Your task to perform on an android device: Go to Maps Image 0: 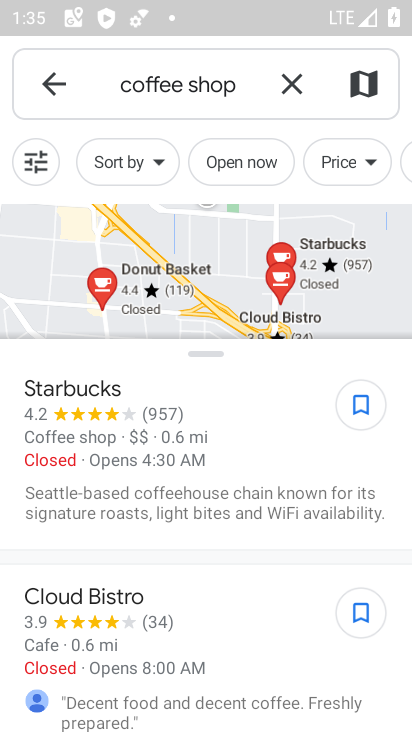
Step 0: press home button
Your task to perform on an android device: Go to Maps Image 1: 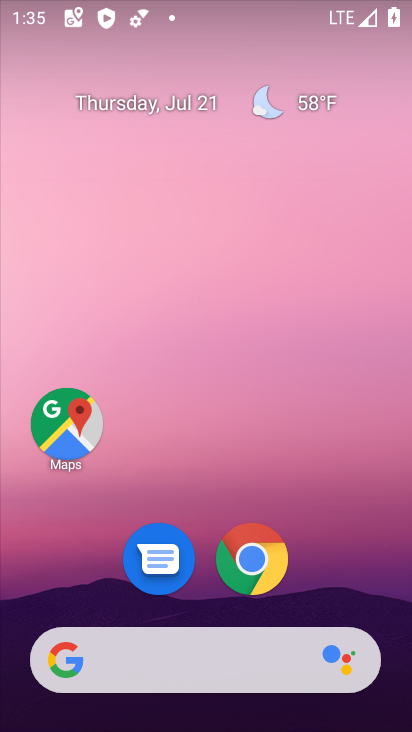
Step 1: drag from (375, 594) to (369, 106)
Your task to perform on an android device: Go to Maps Image 2: 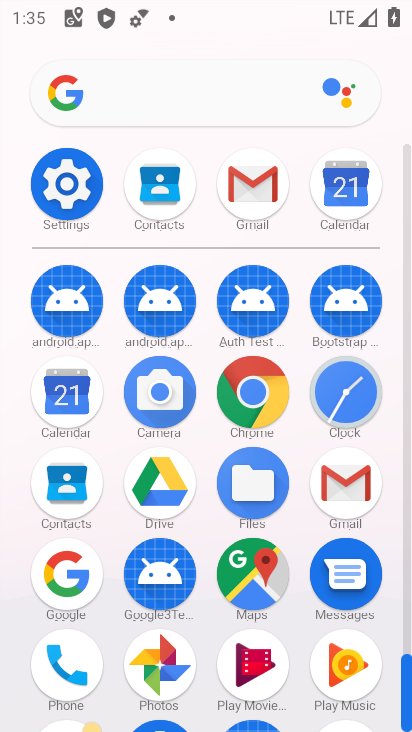
Step 2: click (256, 564)
Your task to perform on an android device: Go to Maps Image 3: 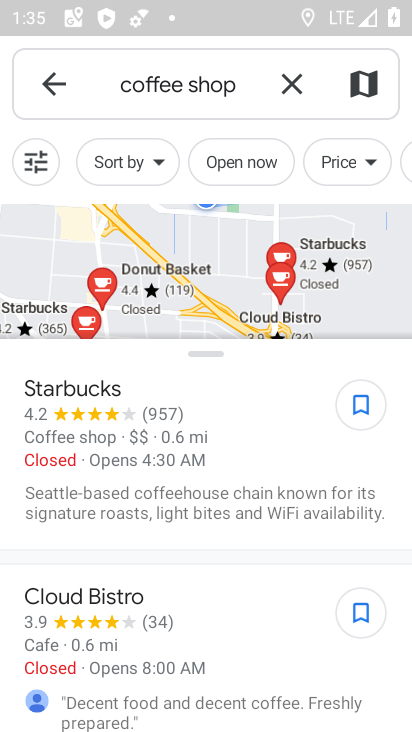
Step 3: task complete